Your task to perform on an android device: Open wifi settings Image 0: 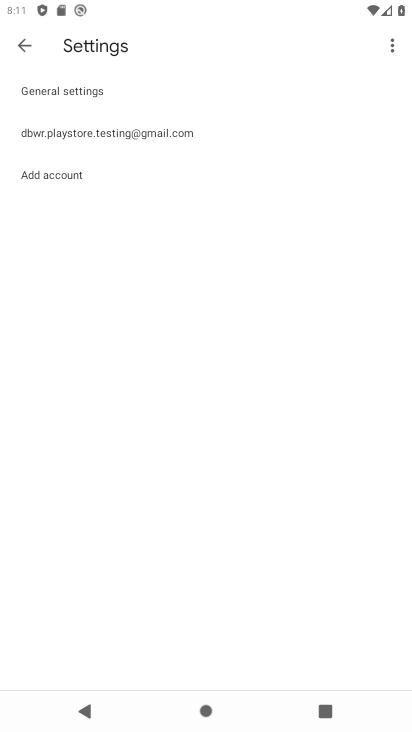
Step 0: press home button
Your task to perform on an android device: Open wifi settings Image 1: 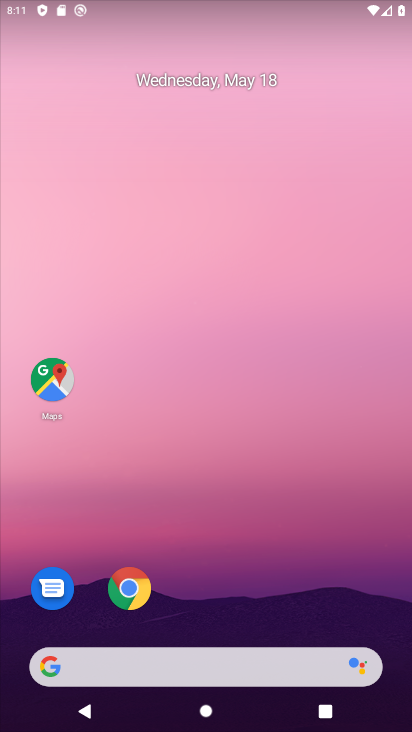
Step 1: drag from (337, 618) to (292, 0)
Your task to perform on an android device: Open wifi settings Image 2: 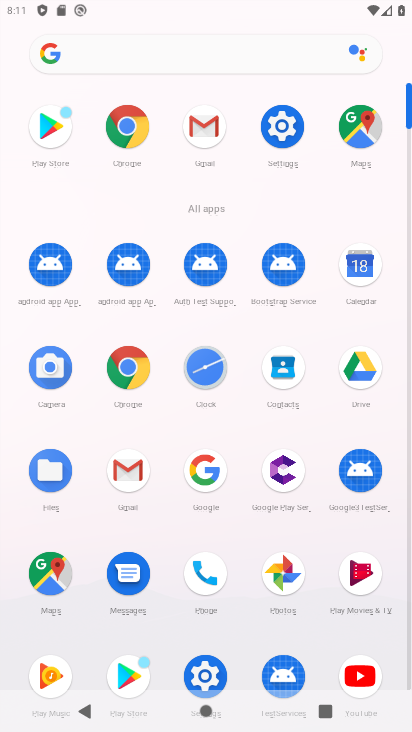
Step 2: click (283, 128)
Your task to perform on an android device: Open wifi settings Image 3: 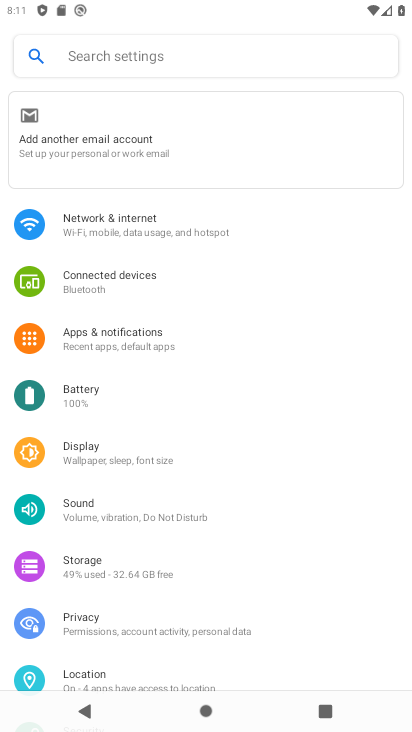
Step 3: click (123, 237)
Your task to perform on an android device: Open wifi settings Image 4: 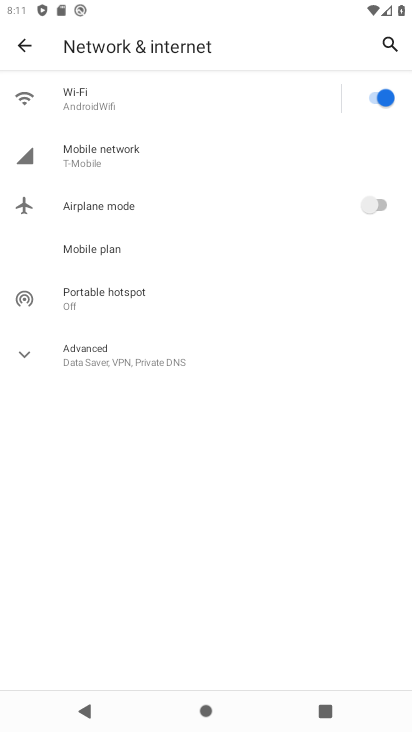
Step 4: click (55, 104)
Your task to perform on an android device: Open wifi settings Image 5: 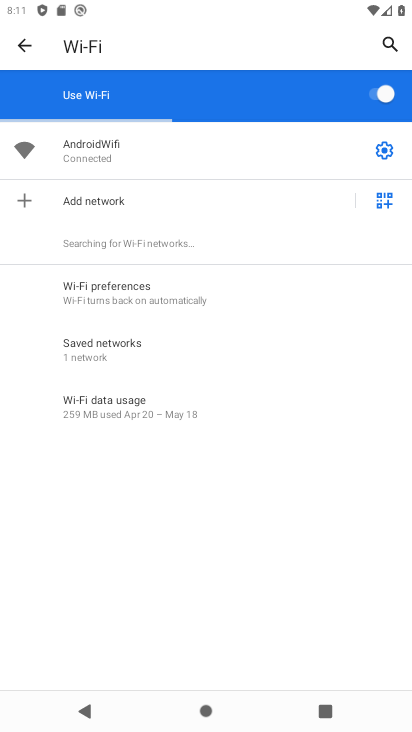
Step 5: task complete